Your task to perform on an android device: check battery use Image 0: 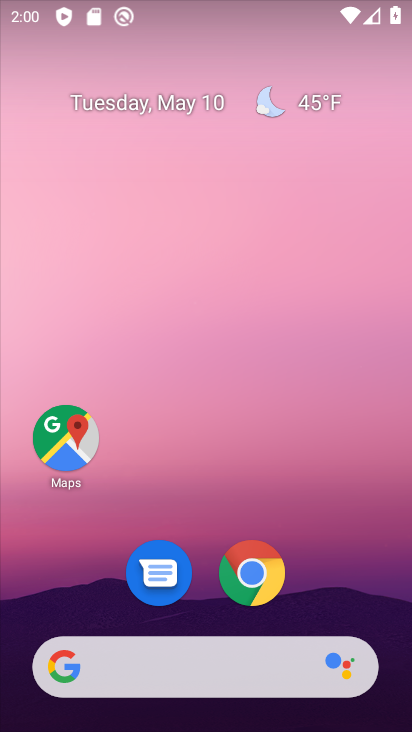
Step 0: drag from (207, 348) to (206, 177)
Your task to perform on an android device: check battery use Image 1: 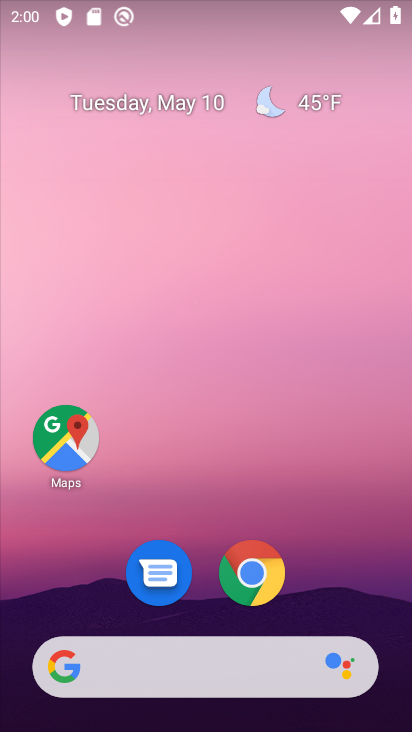
Step 1: drag from (200, 600) to (211, 126)
Your task to perform on an android device: check battery use Image 2: 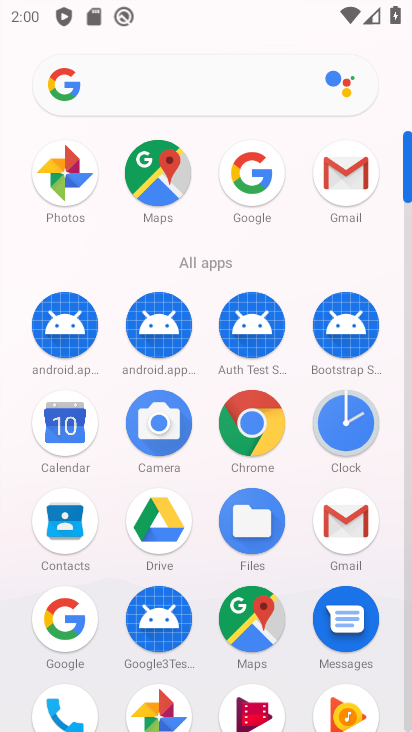
Step 2: drag from (213, 543) to (246, 156)
Your task to perform on an android device: check battery use Image 3: 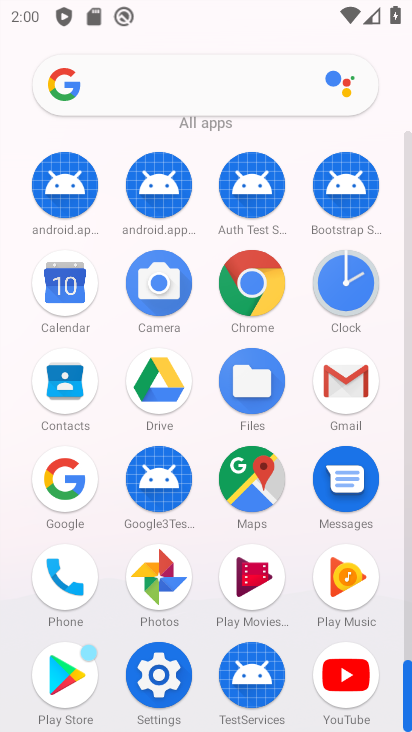
Step 3: click (163, 651)
Your task to perform on an android device: check battery use Image 4: 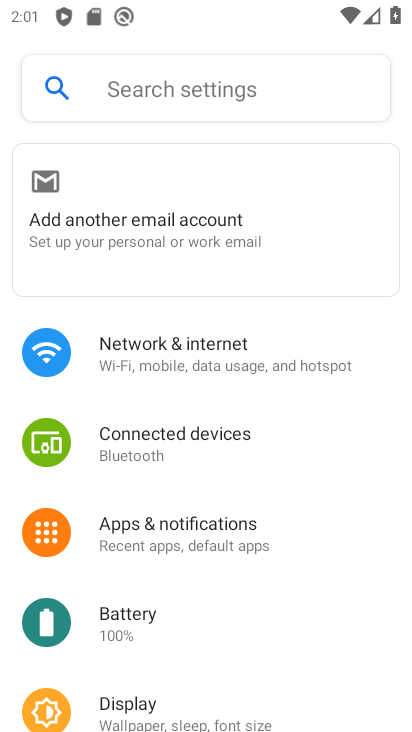
Step 4: click (188, 615)
Your task to perform on an android device: check battery use Image 5: 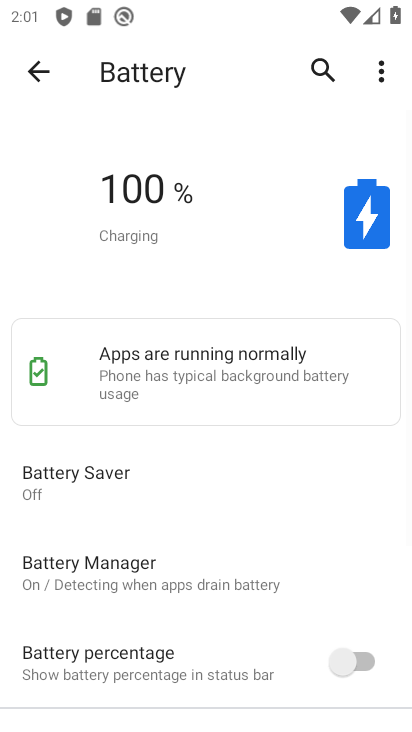
Step 5: click (379, 79)
Your task to perform on an android device: check battery use Image 6: 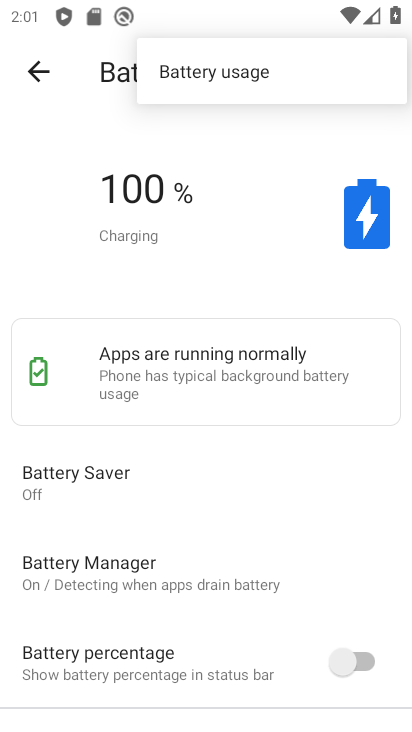
Step 6: click (292, 88)
Your task to perform on an android device: check battery use Image 7: 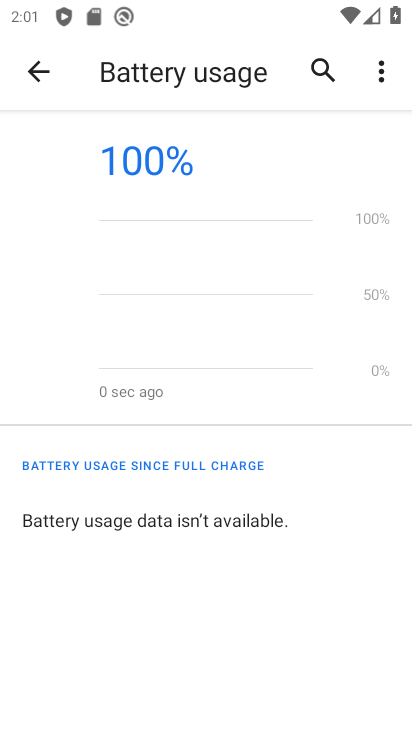
Step 7: task complete